Your task to perform on an android device: Show me recent news Image 0: 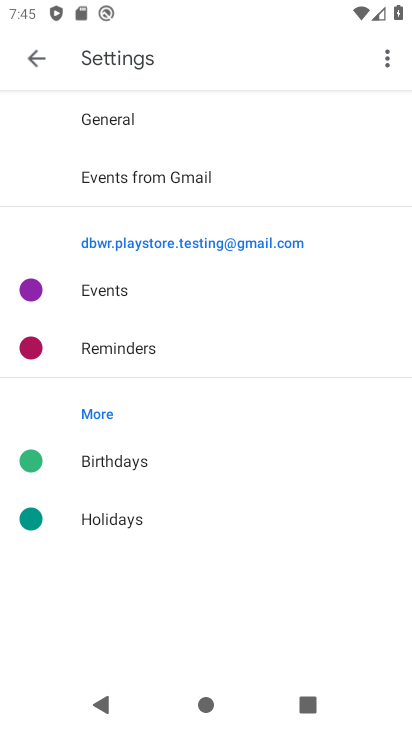
Step 0: press home button
Your task to perform on an android device: Show me recent news Image 1: 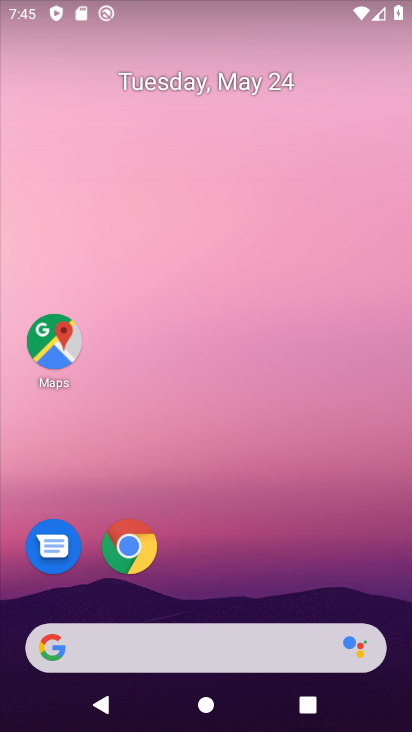
Step 1: click (221, 643)
Your task to perform on an android device: Show me recent news Image 2: 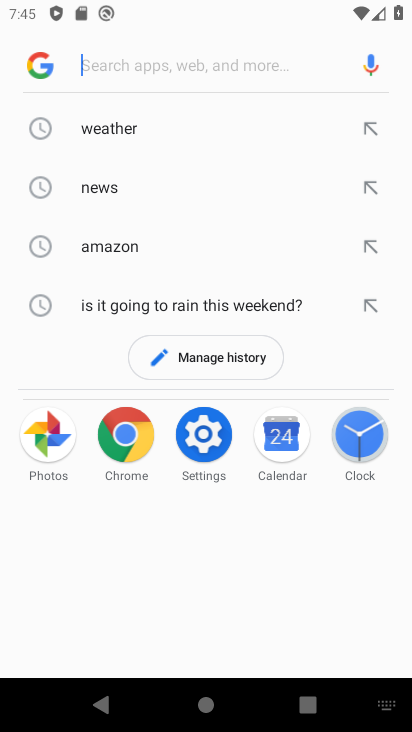
Step 2: click (78, 180)
Your task to perform on an android device: Show me recent news Image 3: 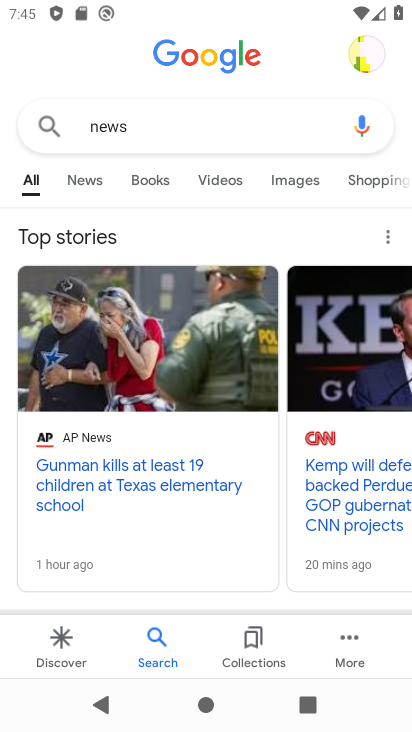
Step 3: drag from (157, 524) to (169, 219)
Your task to perform on an android device: Show me recent news Image 4: 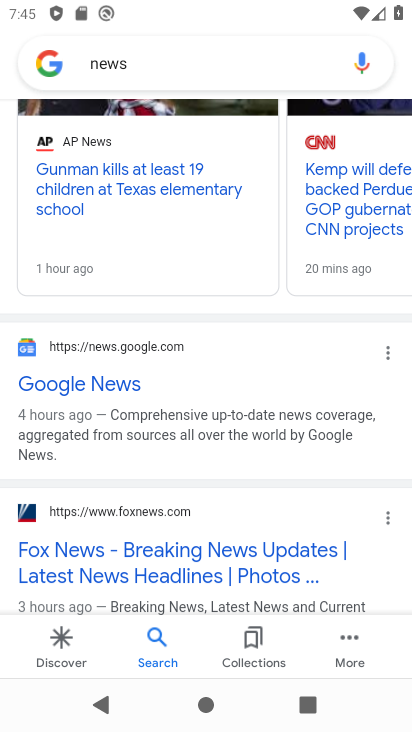
Step 4: click (169, 215)
Your task to perform on an android device: Show me recent news Image 5: 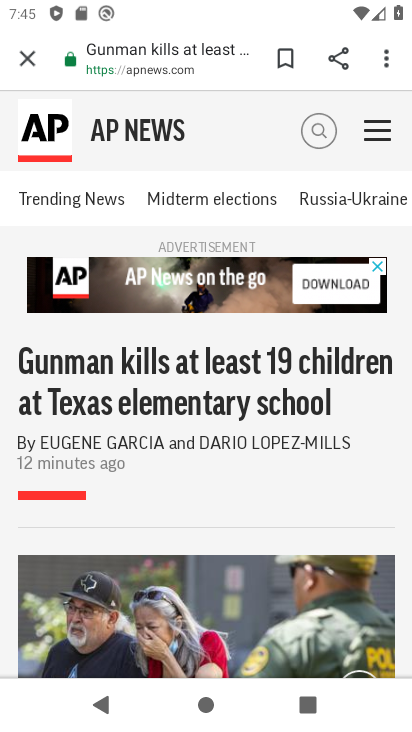
Step 5: drag from (216, 562) to (229, 198)
Your task to perform on an android device: Show me recent news Image 6: 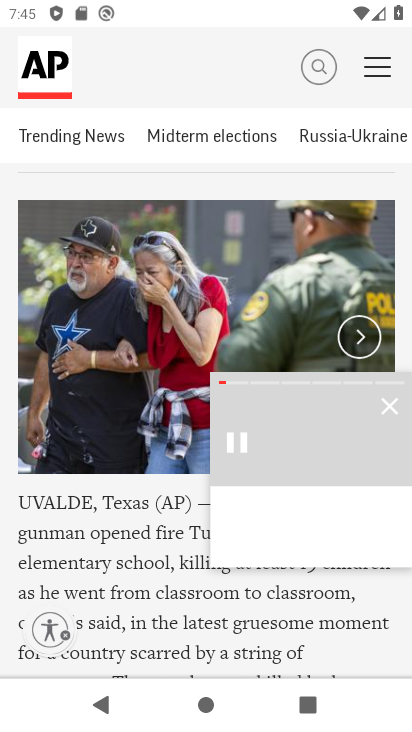
Step 6: drag from (202, 458) to (197, 184)
Your task to perform on an android device: Show me recent news Image 7: 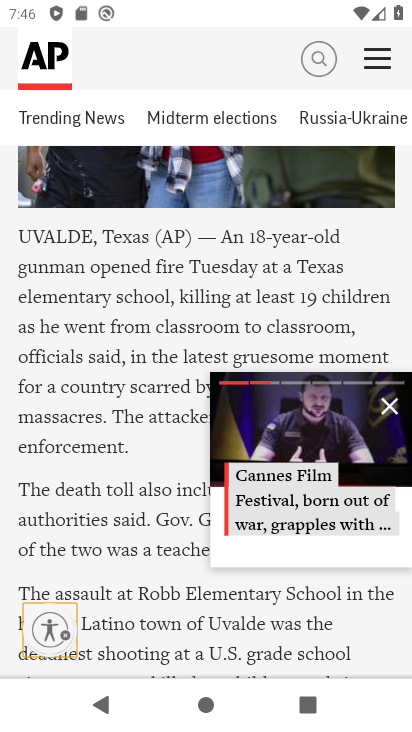
Step 7: click (390, 402)
Your task to perform on an android device: Show me recent news Image 8: 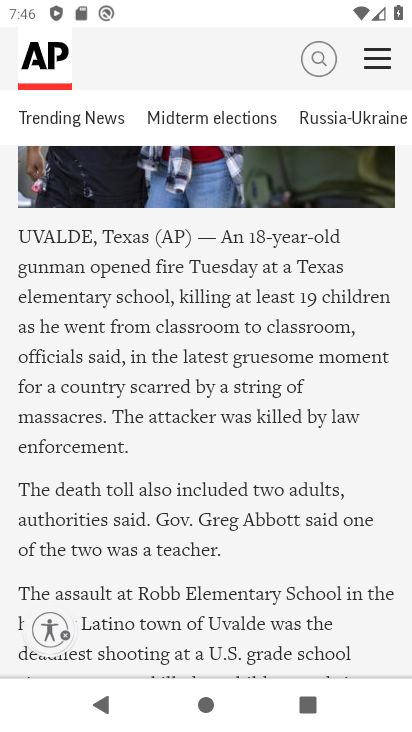
Step 8: task complete